Your task to perform on an android device: Turn off the flashlight Image 0: 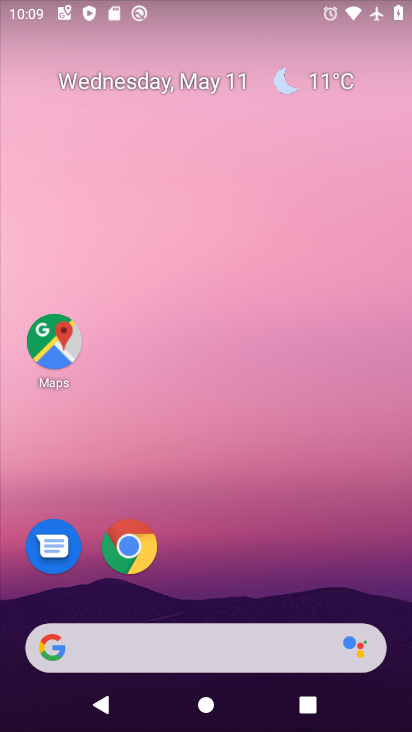
Step 0: drag from (226, 13) to (261, 467)
Your task to perform on an android device: Turn off the flashlight Image 1: 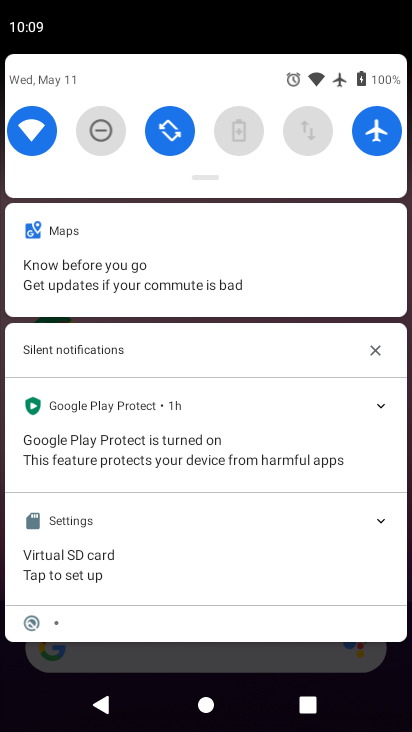
Step 1: drag from (206, 176) to (195, 402)
Your task to perform on an android device: Turn off the flashlight Image 2: 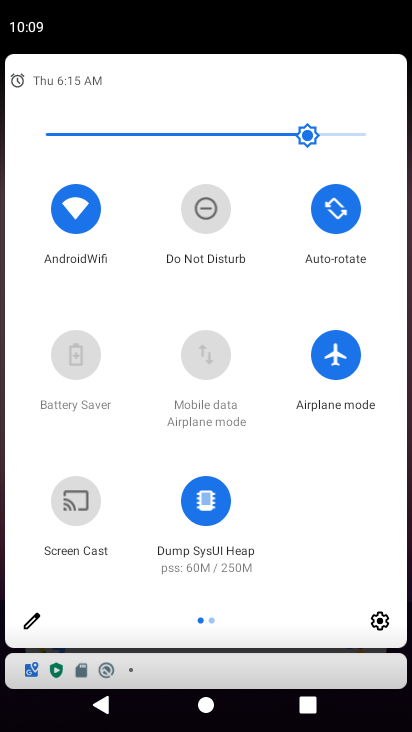
Step 2: click (28, 621)
Your task to perform on an android device: Turn off the flashlight Image 3: 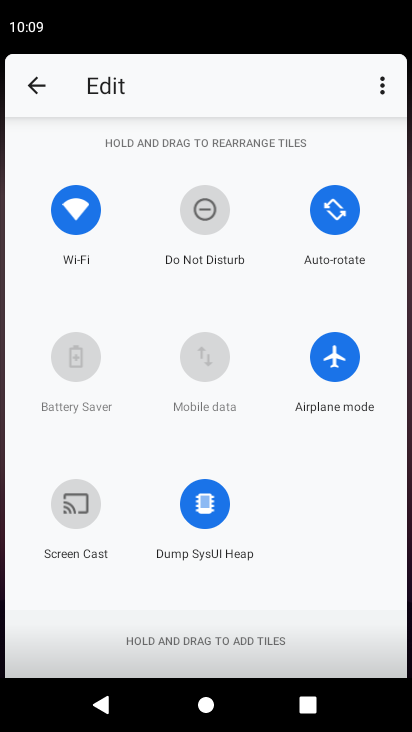
Step 3: task complete